Your task to perform on an android device: turn off improve location accuracy Image 0: 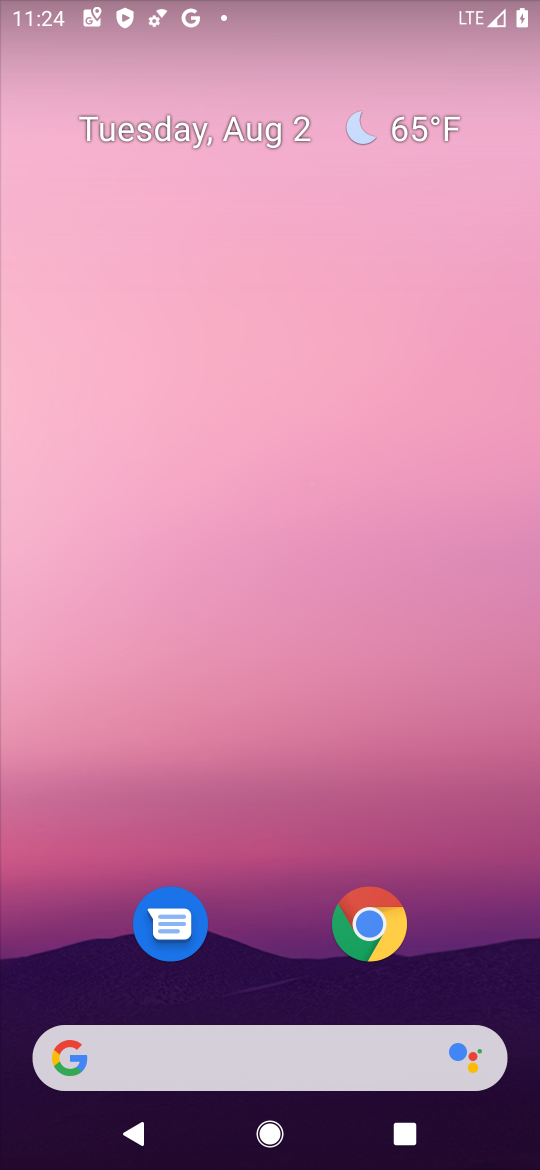
Step 0: drag from (238, 990) to (298, 170)
Your task to perform on an android device: turn off improve location accuracy Image 1: 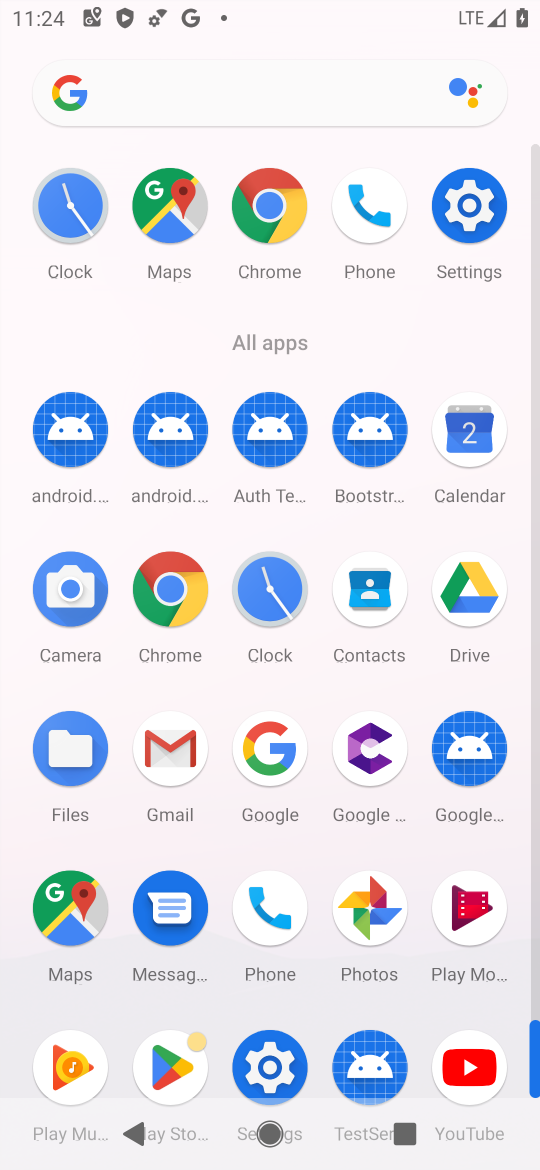
Step 1: click (476, 193)
Your task to perform on an android device: turn off improve location accuracy Image 2: 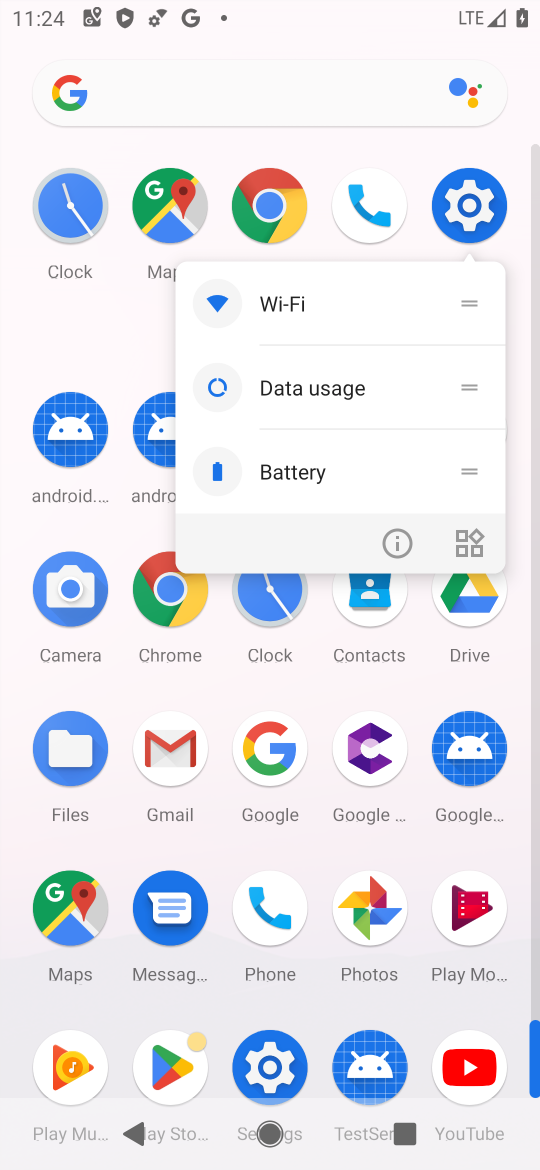
Step 2: click (476, 193)
Your task to perform on an android device: turn off improve location accuracy Image 3: 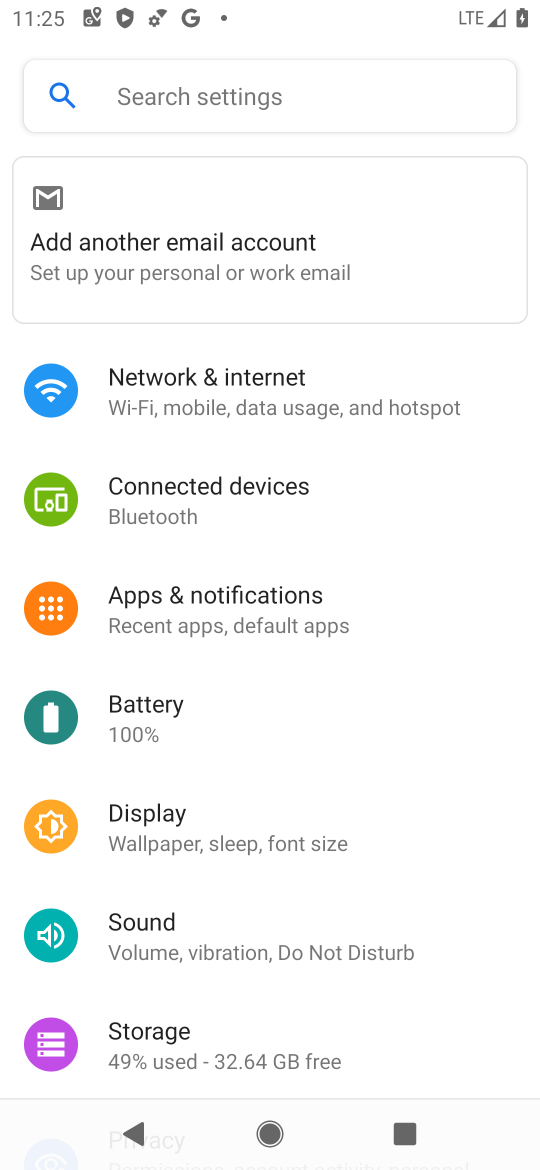
Step 3: drag from (296, 1030) to (373, 452)
Your task to perform on an android device: turn off improve location accuracy Image 4: 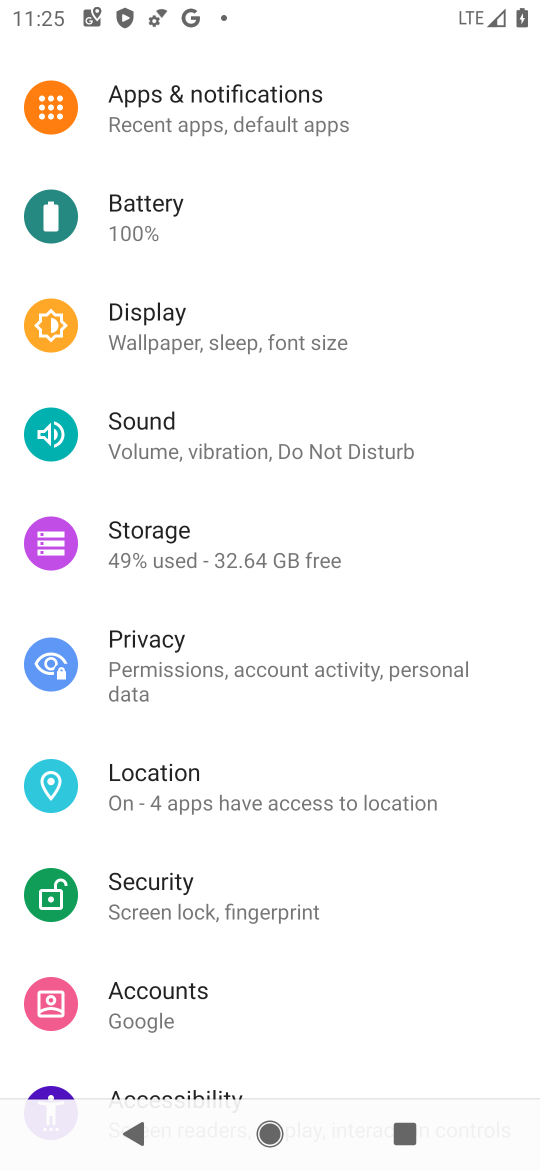
Step 4: click (213, 801)
Your task to perform on an android device: turn off improve location accuracy Image 5: 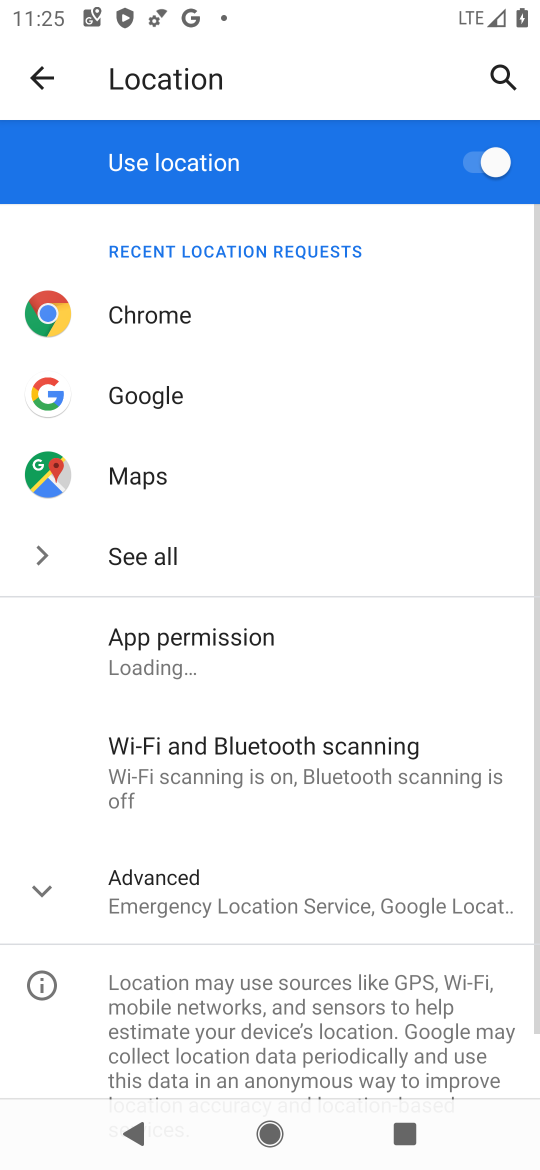
Step 5: click (240, 916)
Your task to perform on an android device: turn off improve location accuracy Image 6: 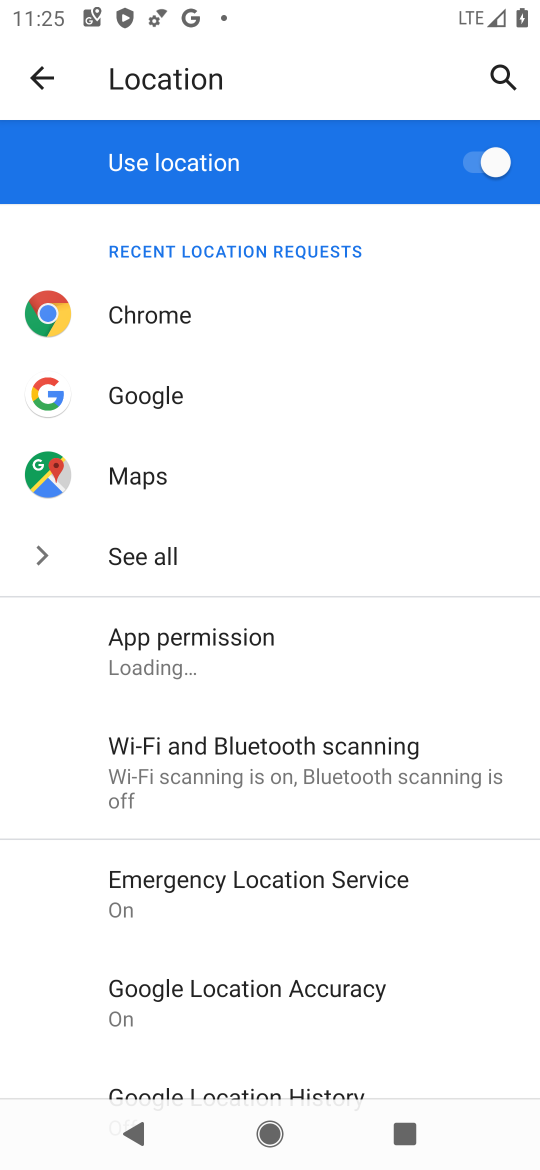
Step 6: click (303, 992)
Your task to perform on an android device: turn off improve location accuracy Image 7: 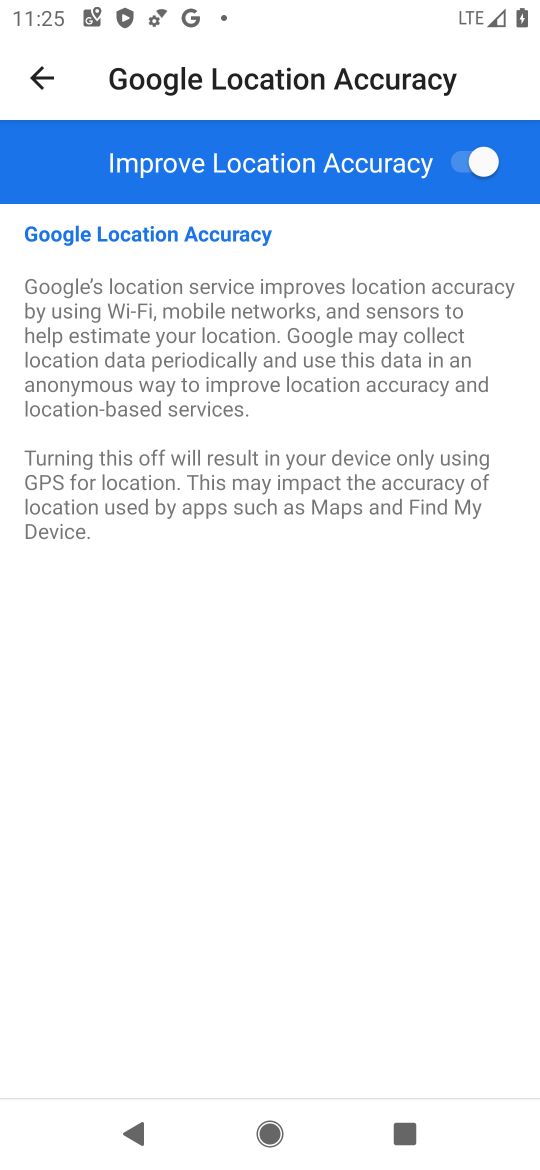
Step 7: click (478, 157)
Your task to perform on an android device: turn off improve location accuracy Image 8: 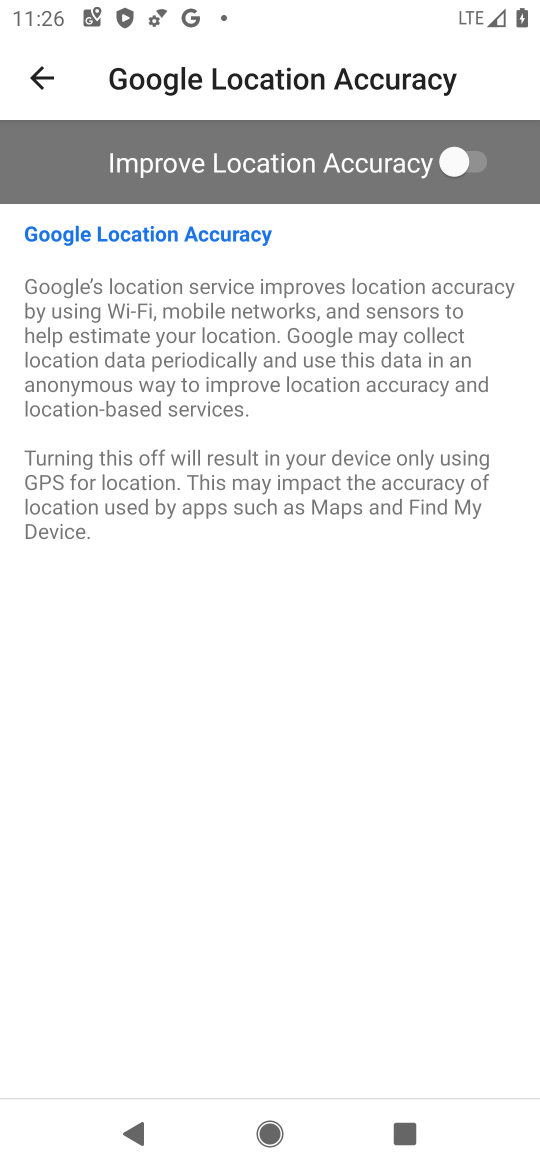
Step 8: task complete